Your task to perform on an android device: turn off smart reply in the gmail app Image 0: 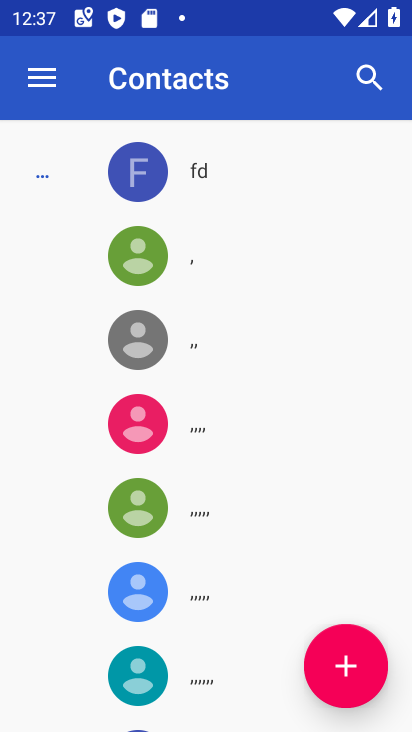
Step 0: press home button
Your task to perform on an android device: turn off smart reply in the gmail app Image 1: 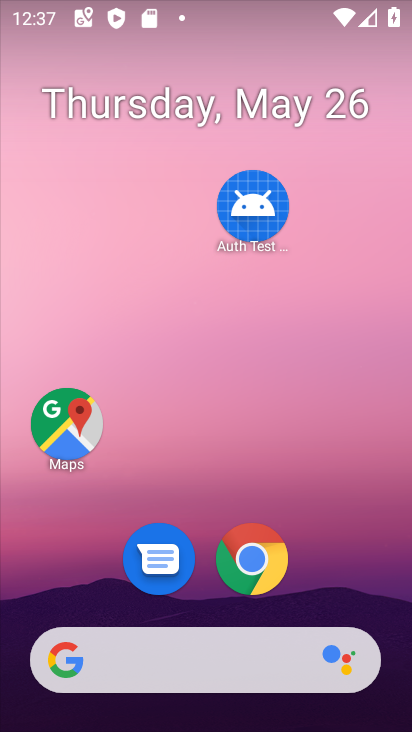
Step 1: drag from (371, 591) to (288, 84)
Your task to perform on an android device: turn off smart reply in the gmail app Image 2: 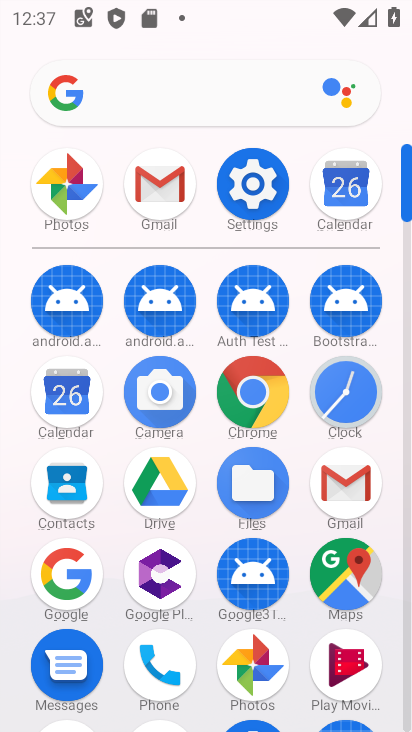
Step 2: click (362, 490)
Your task to perform on an android device: turn off smart reply in the gmail app Image 3: 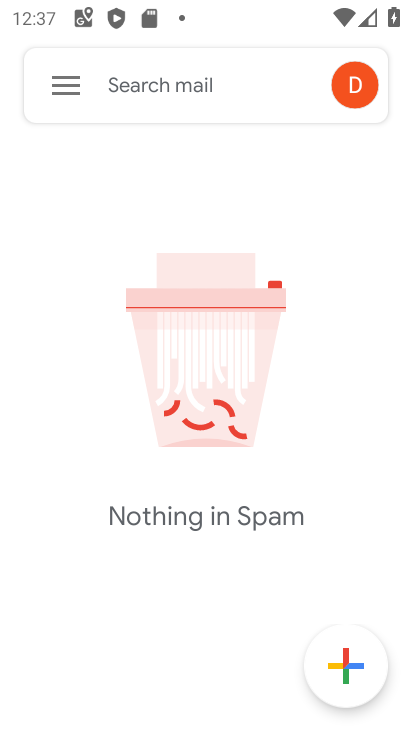
Step 3: click (61, 82)
Your task to perform on an android device: turn off smart reply in the gmail app Image 4: 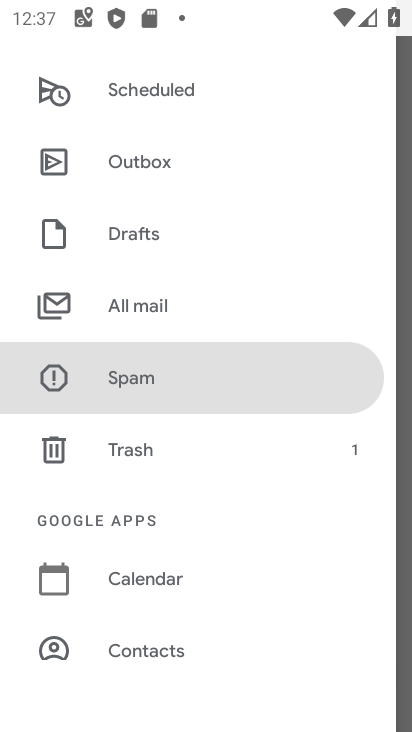
Step 4: drag from (161, 640) to (115, 281)
Your task to perform on an android device: turn off smart reply in the gmail app Image 5: 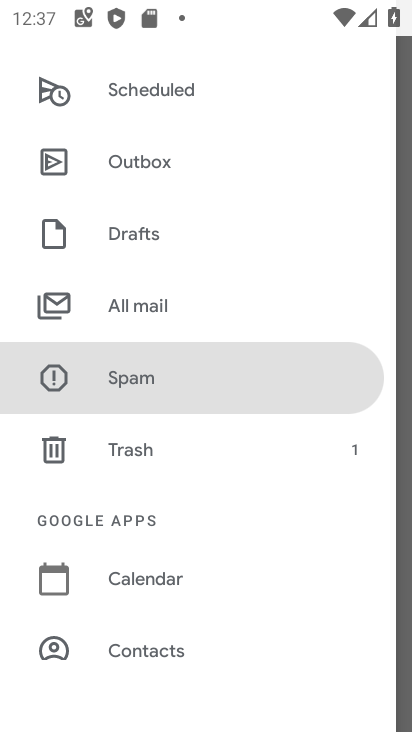
Step 5: drag from (157, 557) to (145, 223)
Your task to perform on an android device: turn off smart reply in the gmail app Image 6: 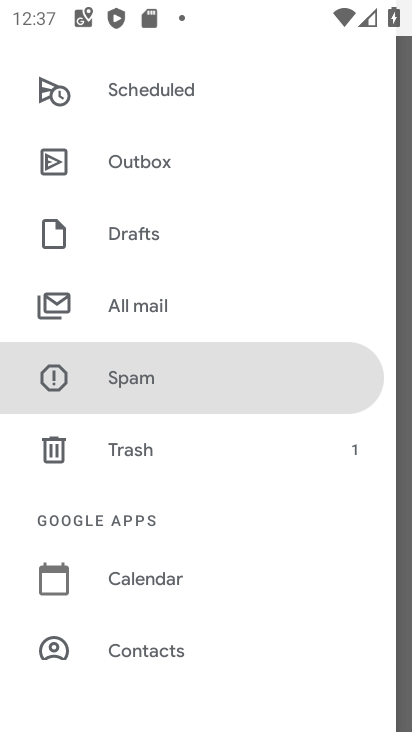
Step 6: drag from (156, 567) to (172, 225)
Your task to perform on an android device: turn off smart reply in the gmail app Image 7: 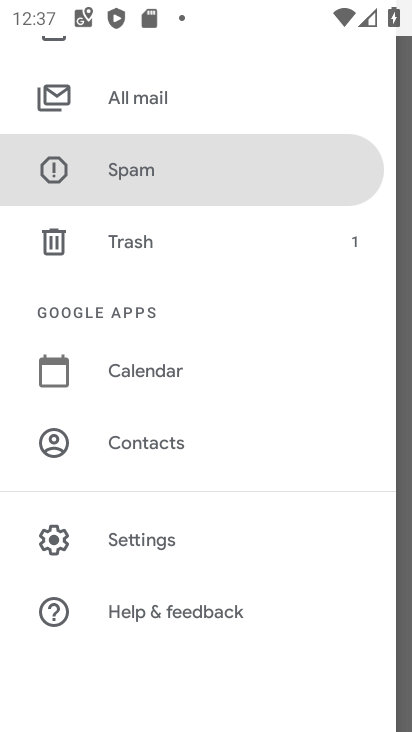
Step 7: click (163, 532)
Your task to perform on an android device: turn off smart reply in the gmail app Image 8: 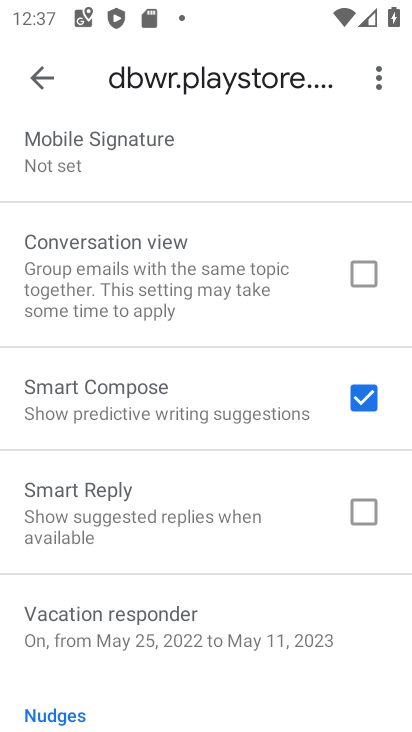
Step 8: task complete